Your task to perform on an android device: Open calendar and show me the second week of next month Image 0: 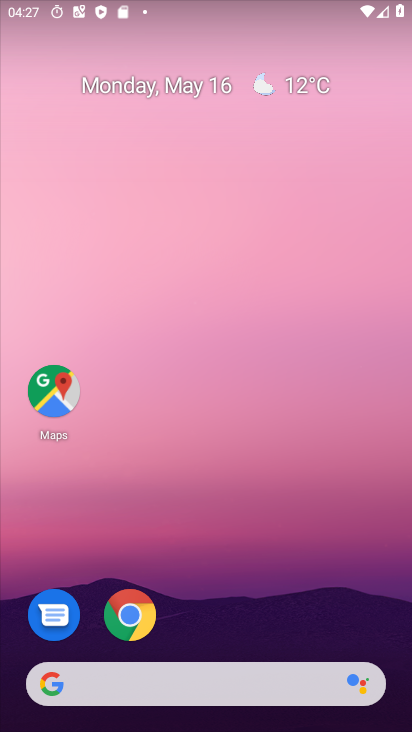
Step 0: click (261, 184)
Your task to perform on an android device: Open calendar and show me the second week of next month Image 1: 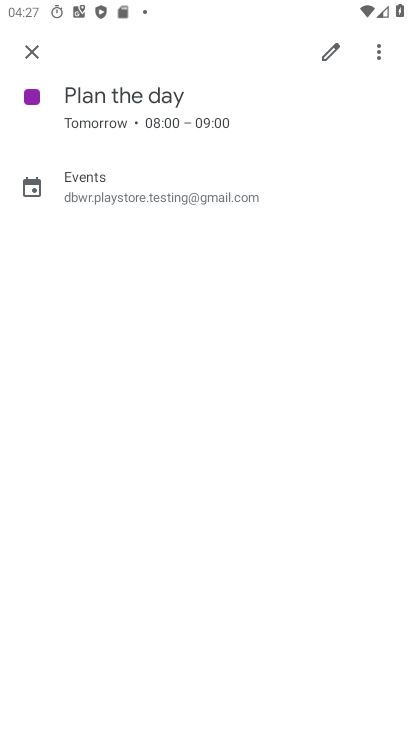
Step 1: click (28, 46)
Your task to perform on an android device: Open calendar and show me the second week of next month Image 2: 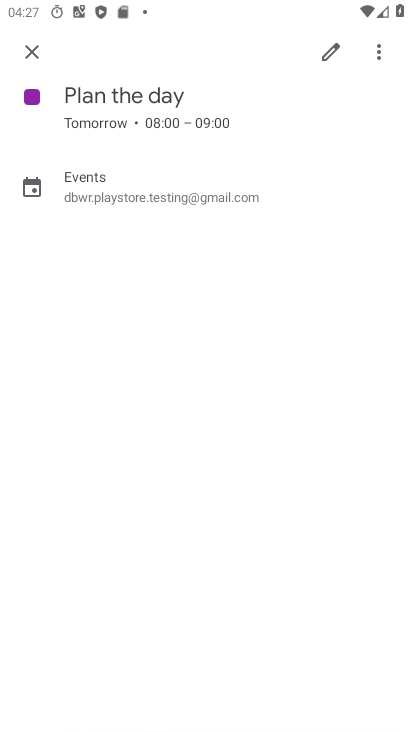
Step 2: click (28, 46)
Your task to perform on an android device: Open calendar and show me the second week of next month Image 3: 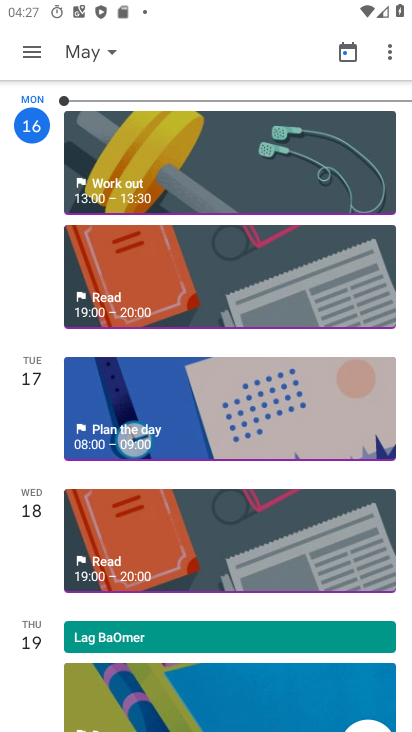
Step 3: click (28, 46)
Your task to perform on an android device: Open calendar and show me the second week of next month Image 4: 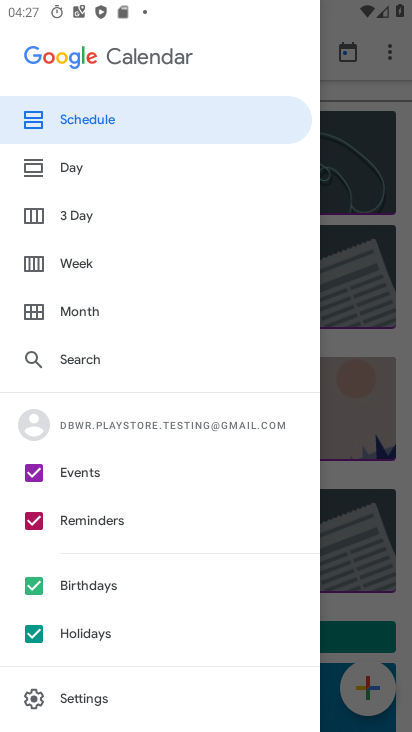
Step 4: click (339, 288)
Your task to perform on an android device: Open calendar and show me the second week of next month Image 5: 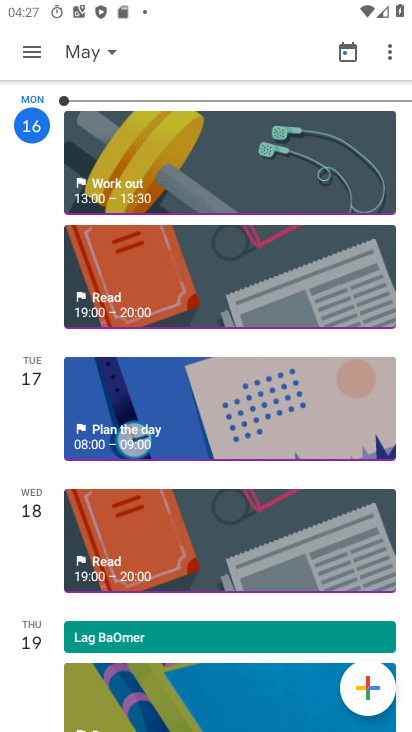
Step 5: drag from (205, 463) to (194, 165)
Your task to perform on an android device: Open calendar and show me the second week of next month Image 6: 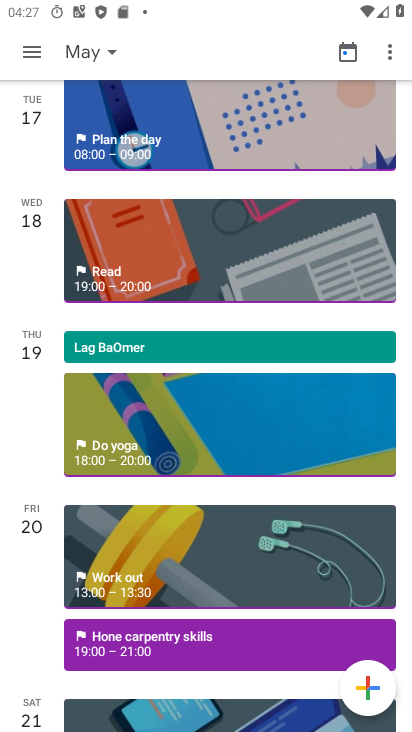
Step 6: drag from (195, 507) to (117, 155)
Your task to perform on an android device: Open calendar and show me the second week of next month Image 7: 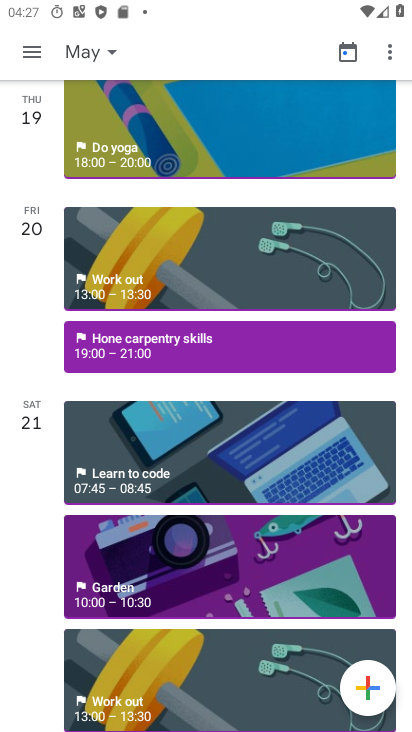
Step 7: drag from (187, 384) to (248, 595)
Your task to perform on an android device: Open calendar and show me the second week of next month Image 8: 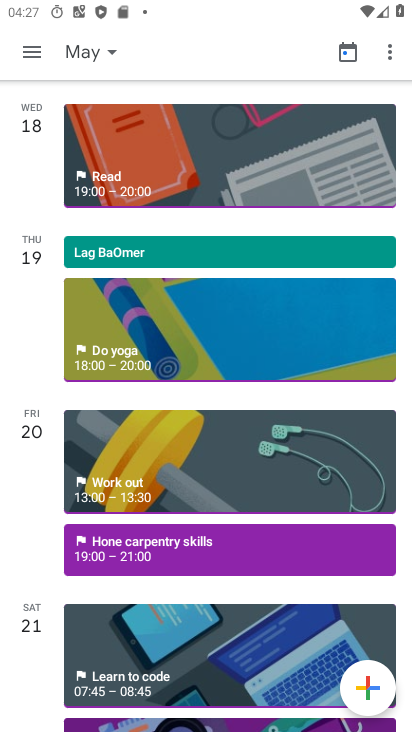
Step 8: drag from (193, 513) to (178, 186)
Your task to perform on an android device: Open calendar and show me the second week of next month Image 9: 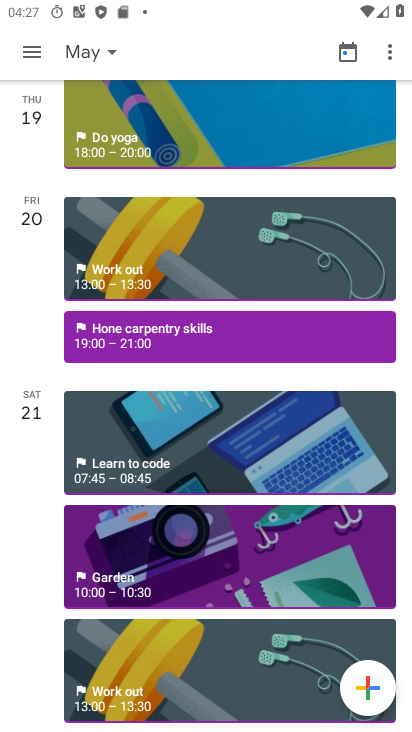
Step 9: drag from (192, 450) to (157, 203)
Your task to perform on an android device: Open calendar and show me the second week of next month Image 10: 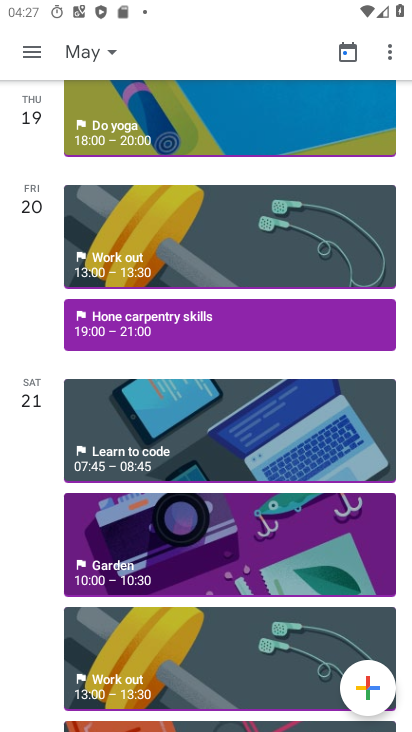
Step 10: drag from (237, 449) to (244, 167)
Your task to perform on an android device: Open calendar and show me the second week of next month Image 11: 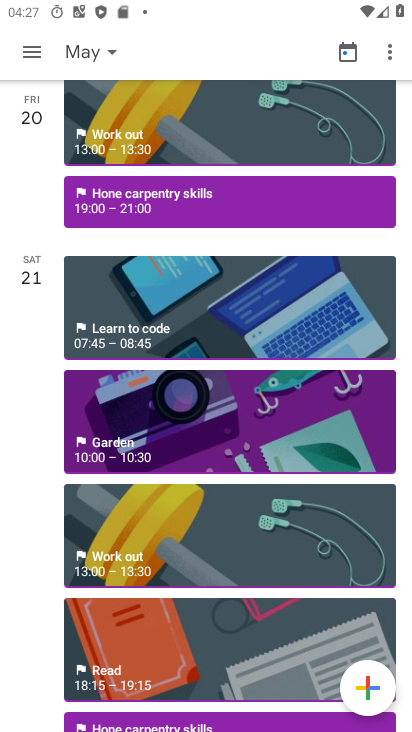
Step 11: drag from (152, 247) to (234, 478)
Your task to perform on an android device: Open calendar and show me the second week of next month Image 12: 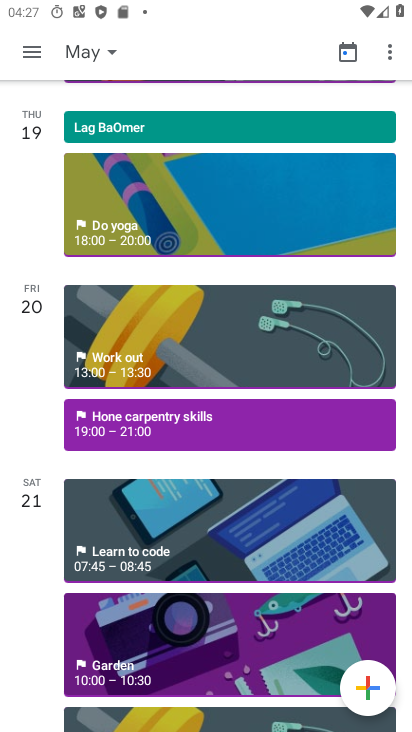
Step 12: drag from (149, 207) to (180, 469)
Your task to perform on an android device: Open calendar and show me the second week of next month Image 13: 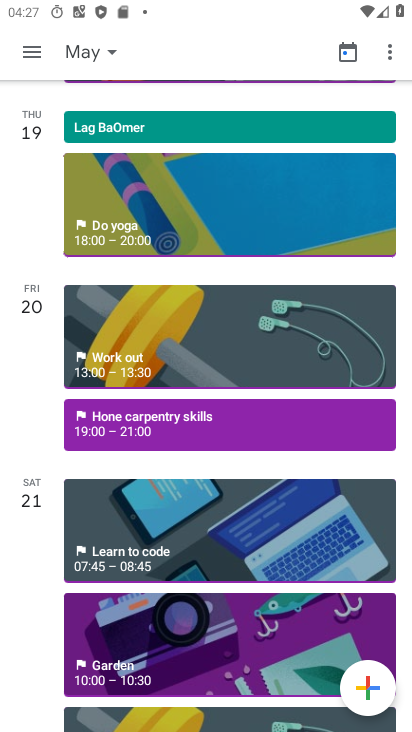
Step 13: drag from (111, 202) to (175, 503)
Your task to perform on an android device: Open calendar and show me the second week of next month Image 14: 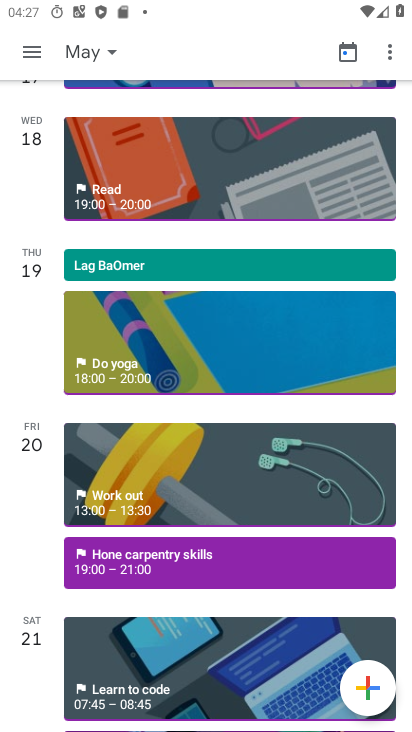
Step 14: drag from (146, 270) to (217, 535)
Your task to perform on an android device: Open calendar and show me the second week of next month Image 15: 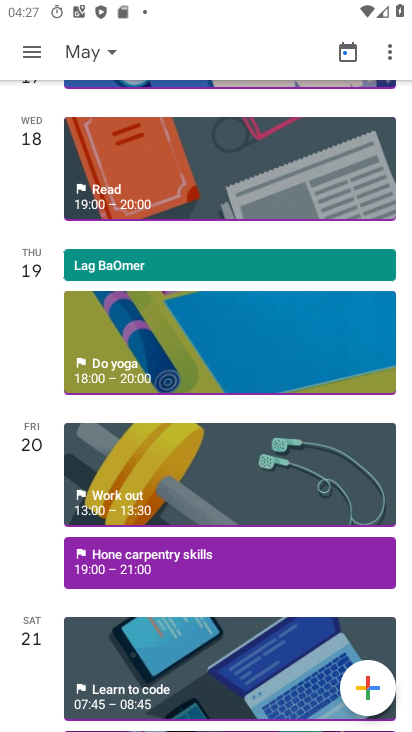
Step 15: drag from (160, 280) to (197, 569)
Your task to perform on an android device: Open calendar and show me the second week of next month Image 16: 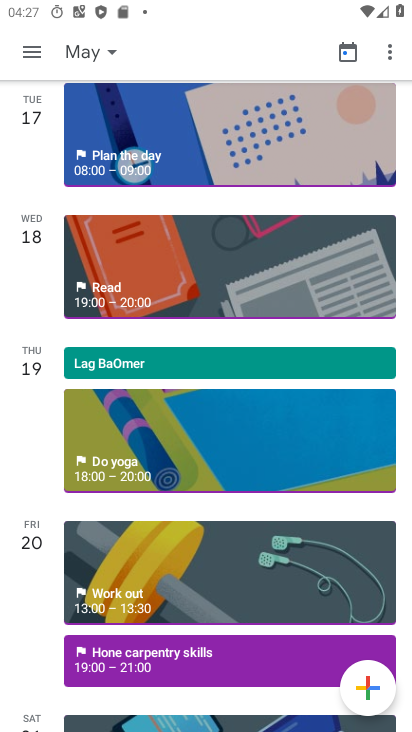
Step 16: click (113, 52)
Your task to perform on an android device: Open calendar and show me the second week of next month Image 17: 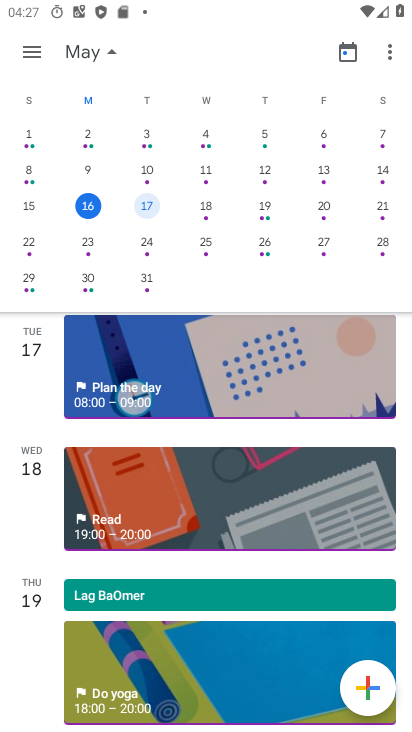
Step 17: drag from (291, 200) to (10, 156)
Your task to perform on an android device: Open calendar and show me the second week of next month Image 18: 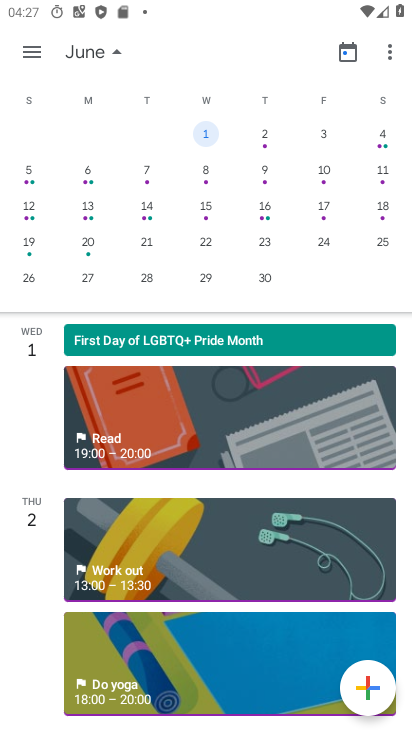
Step 18: drag from (229, 235) to (39, 253)
Your task to perform on an android device: Open calendar and show me the second week of next month Image 19: 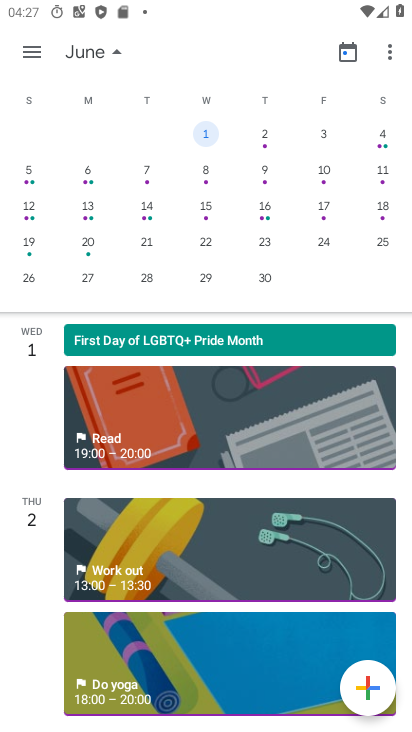
Step 19: click (201, 164)
Your task to perform on an android device: Open calendar and show me the second week of next month Image 20: 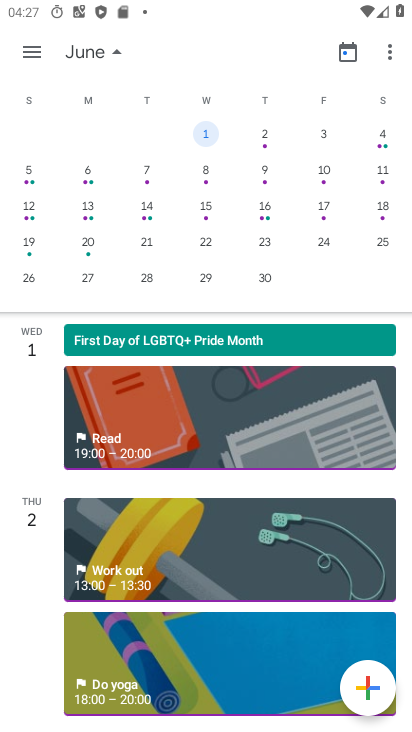
Step 20: click (202, 166)
Your task to perform on an android device: Open calendar and show me the second week of next month Image 21: 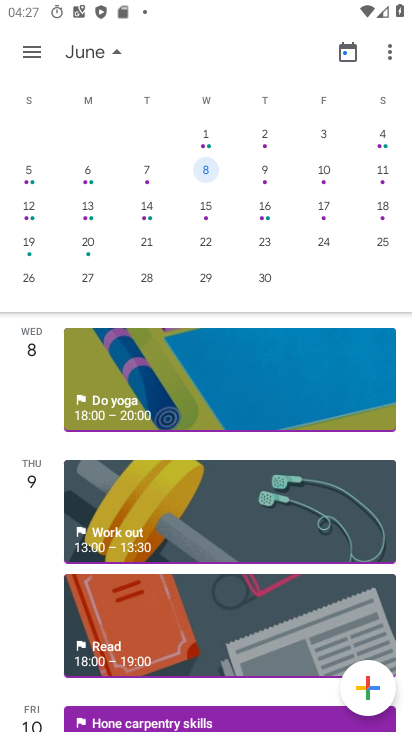
Step 21: click (202, 166)
Your task to perform on an android device: Open calendar and show me the second week of next month Image 22: 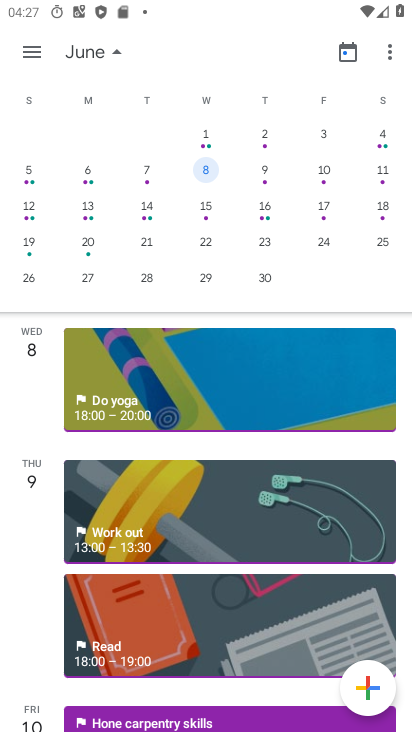
Step 22: click (202, 166)
Your task to perform on an android device: Open calendar and show me the second week of next month Image 23: 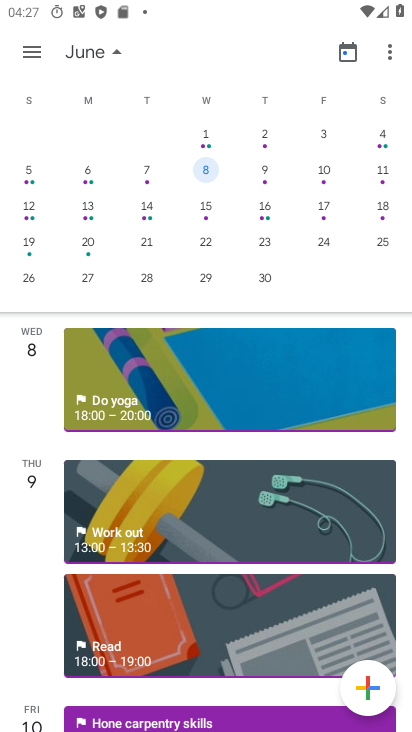
Step 23: task complete